Your task to perform on an android device: Toggle the flashlight Image 0: 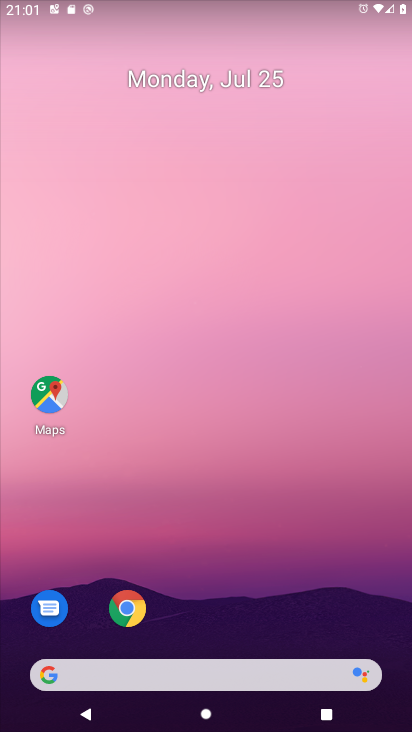
Step 0: drag from (249, 594) to (176, 133)
Your task to perform on an android device: Toggle the flashlight Image 1: 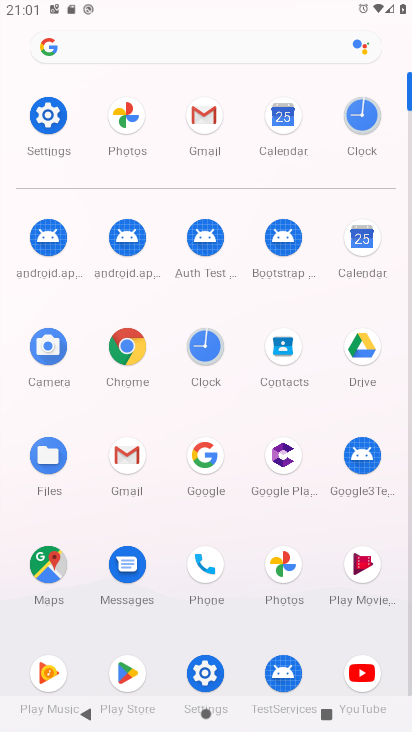
Step 1: click (44, 113)
Your task to perform on an android device: Toggle the flashlight Image 2: 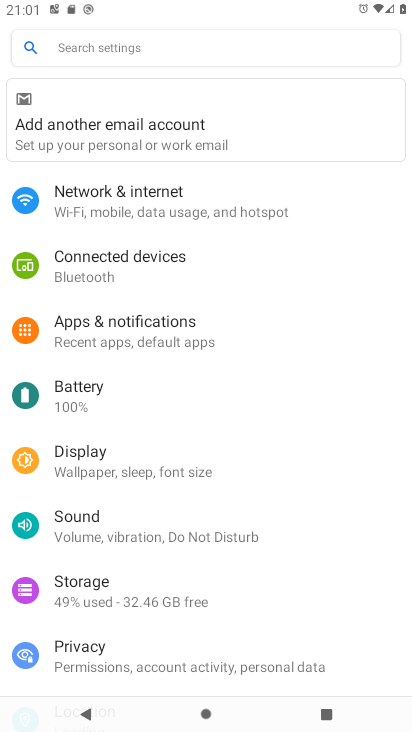
Step 2: task complete